Your task to perform on an android device: Open maps Image 0: 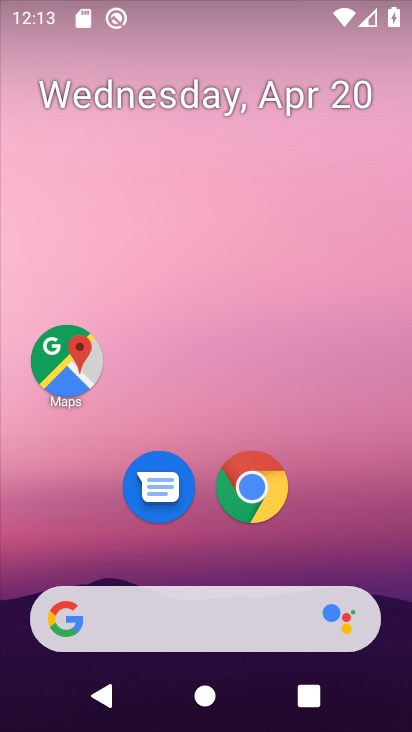
Step 0: drag from (347, 445) to (268, 46)
Your task to perform on an android device: Open maps Image 1: 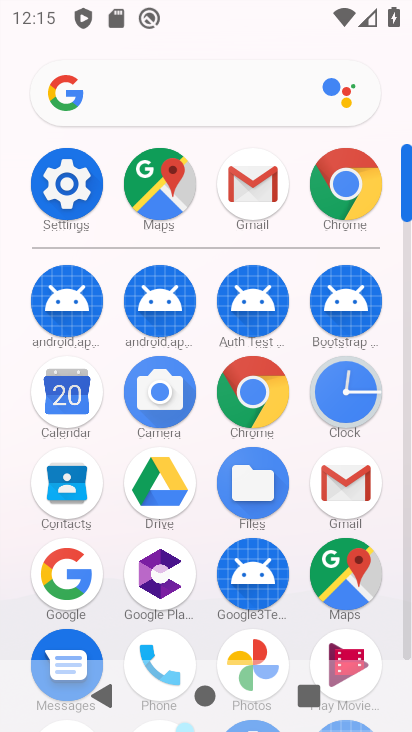
Step 1: click (347, 561)
Your task to perform on an android device: Open maps Image 2: 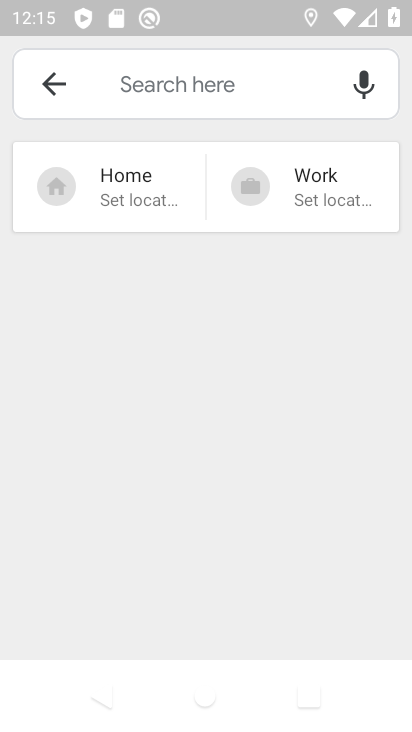
Step 2: task complete